Your task to perform on an android device: Go to Google maps Image 0: 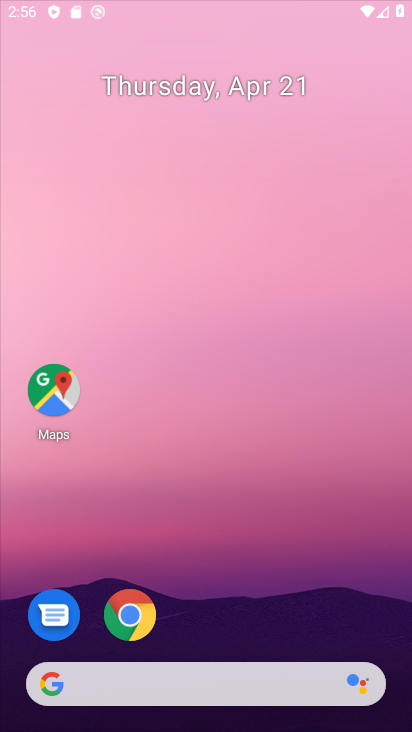
Step 0: click (212, 104)
Your task to perform on an android device: Go to Google maps Image 1: 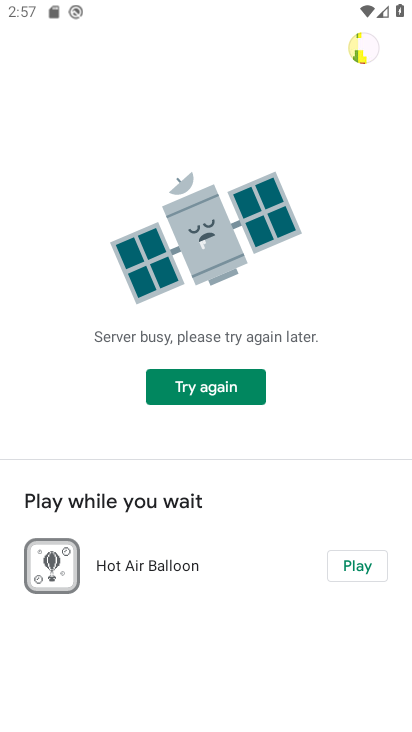
Step 1: press home button
Your task to perform on an android device: Go to Google maps Image 2: 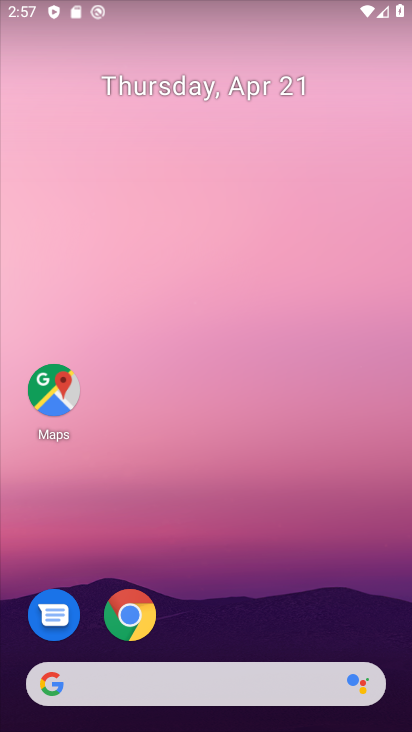
Step 2: click (53, 388)
Your task to perform on an android device: Go to Google maps Image 3: 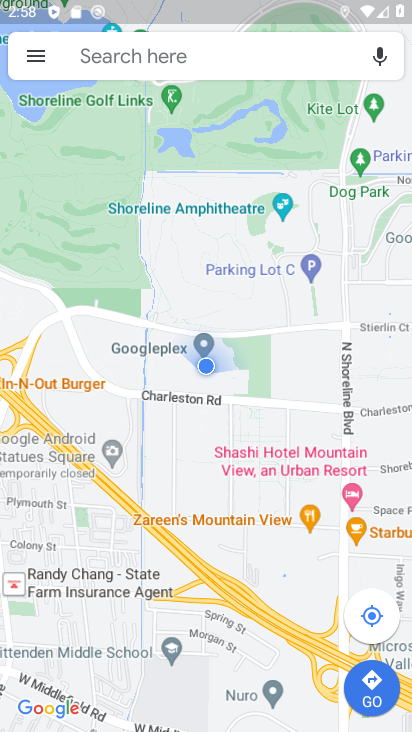
Step 3: task complete